Your task to perform on an android device: Search for the new Nintendo switch on Best Buy Image 0: 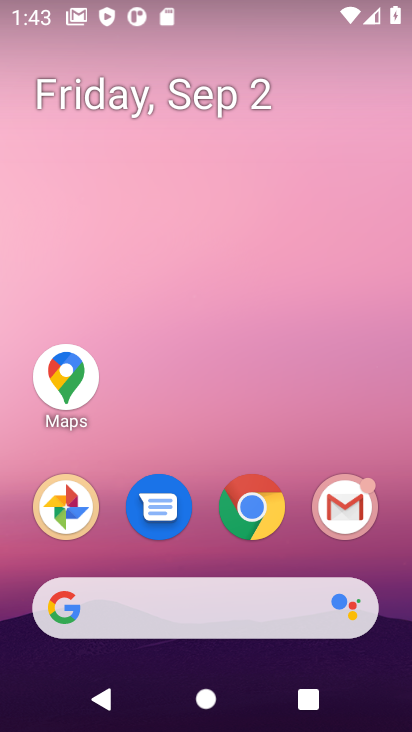
Step 0: click (248, 504)
Your task to perform on an android device: Search for the new Nintendo switch on Best Buy Image 1: 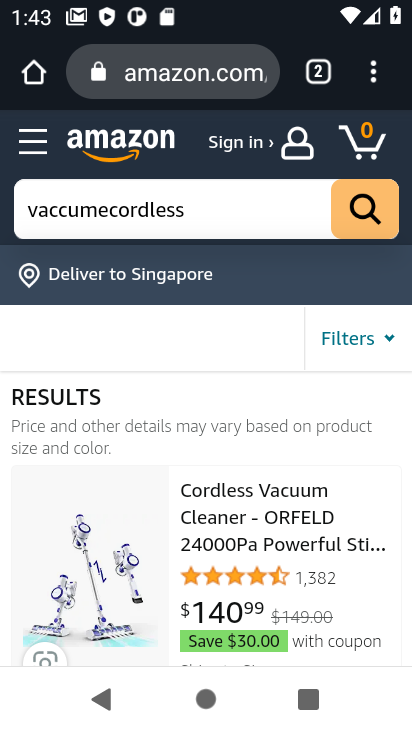
Step 1: click (233, 55)
Your task to perform on an android device: Search for the new Nintendo switch on Best Buy Image 2: 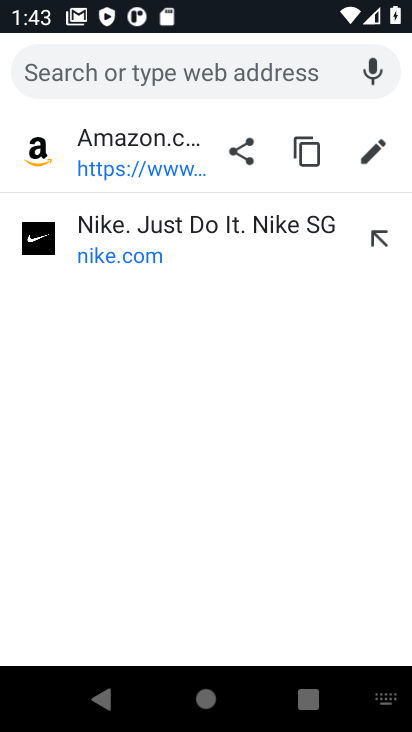
Step 2: click (107, 184)
Your task to perform on an android device: Search for the new Nintendo switch on Best Buy Image 3: 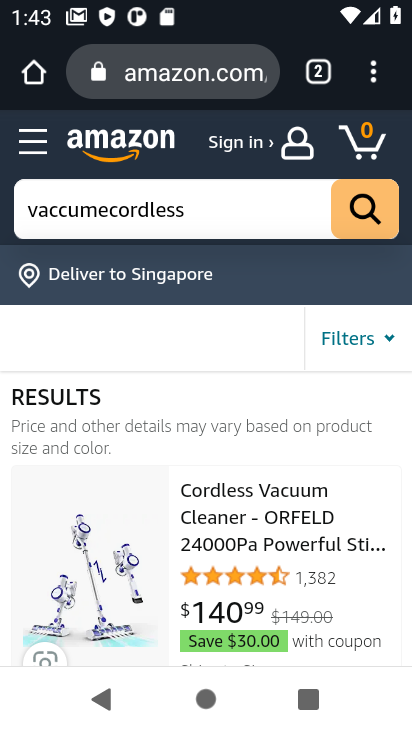
Step 3: click (264, 199)
Your task to perform on an android device: Search for the new Nintendo switch on Best Buy Image 4: 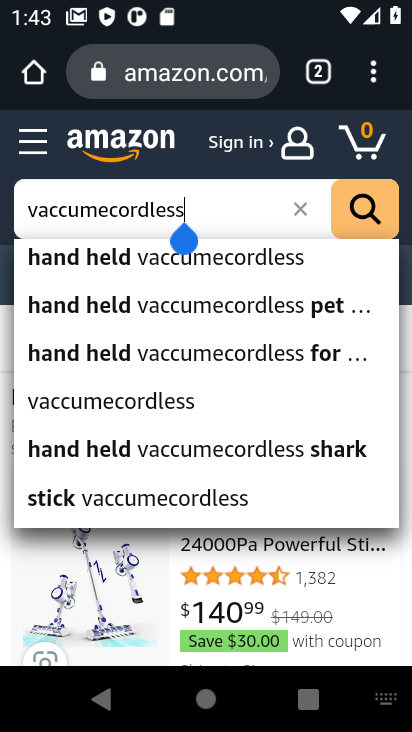
Step 4: click (304, 208)
Your task to perform on an android device: Search for the new Nintendo switch on Best Buy Image 5: 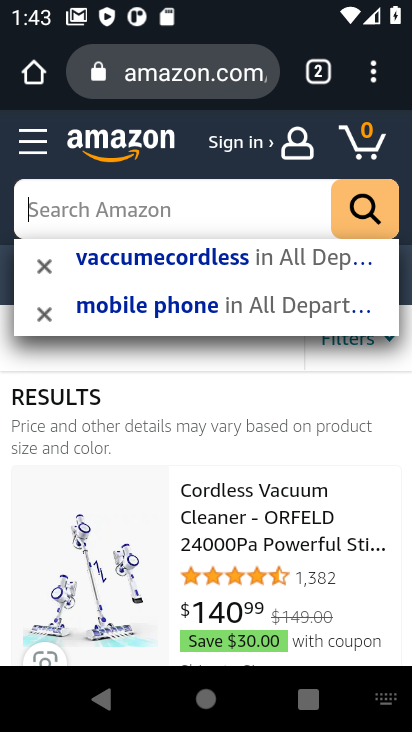
Step 5: type "nitendo"
Your task to perform on an android device: Search for the new Nintendo switch on Best Buy Image 6: 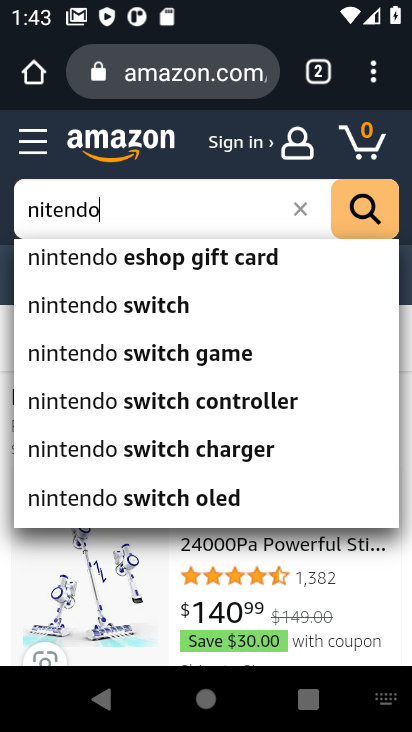
Step 6: click (144, 293)
Your task to perform on an android device: Search for the new Nintendo switch on Best Buy Image 7: 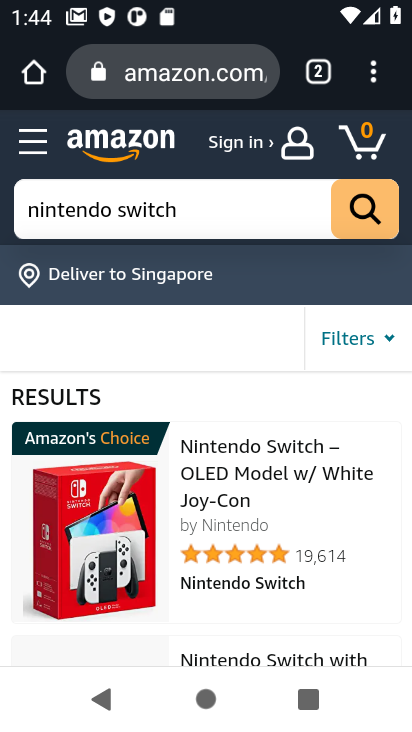
Step 7: task complete